Your task to perform on an android device: set the stopwatch Image 0: 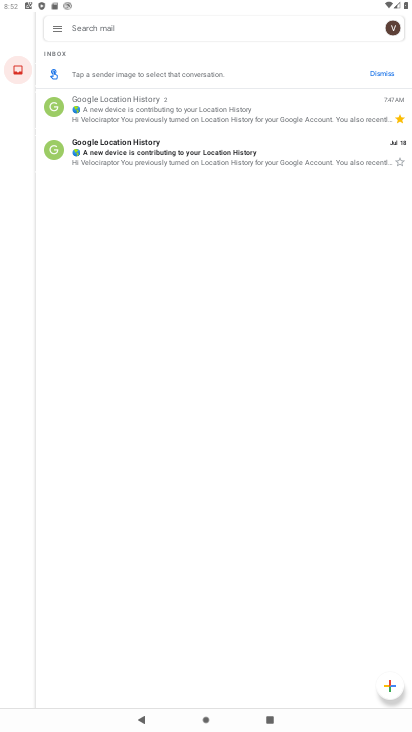
Step 0: press home button
Your task to perform on an android device: set the stopwatch Image 1: 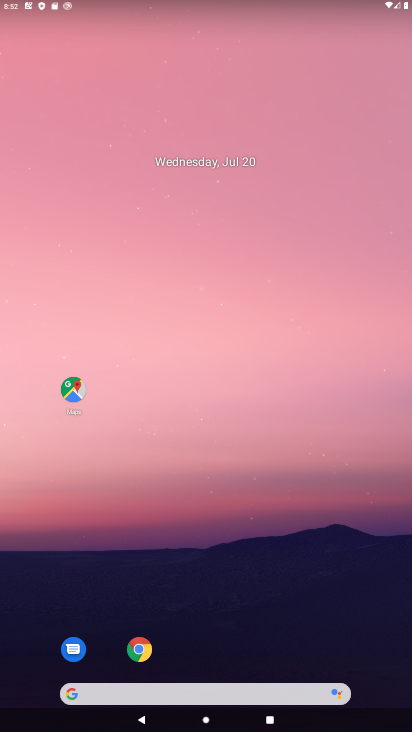
Step 1: drag from (185, 694) to (131, 198)
Your task to perform on an android device: set the stopwatch Image 2: 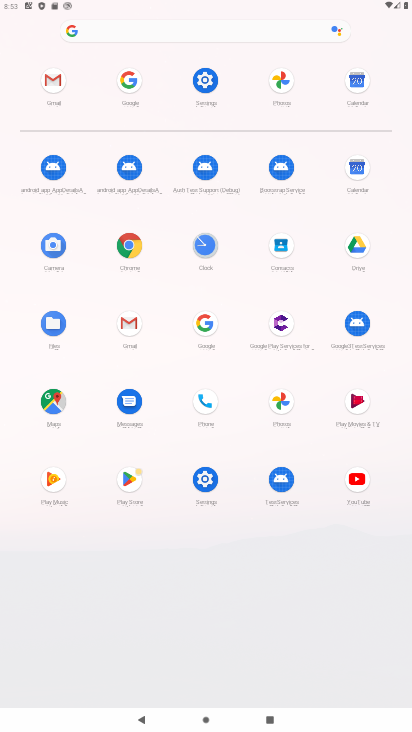
Step 2: click (208, 246)
Your task to perform on an android device: set the stopwatch Image 3: 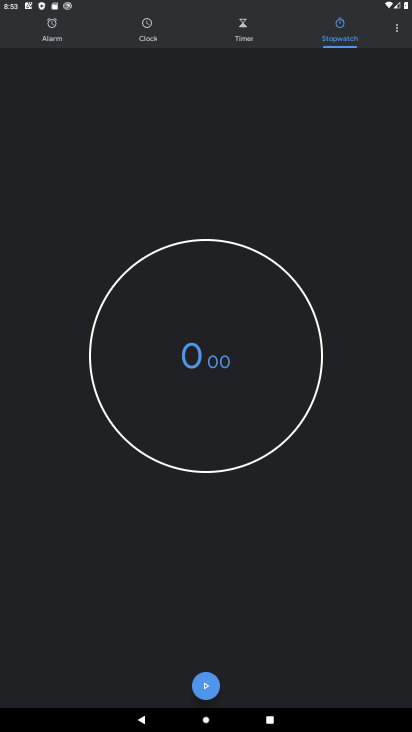
Step 3: click (206, 686)
Your task to perform on an android device: set the stopwatch Image 4: 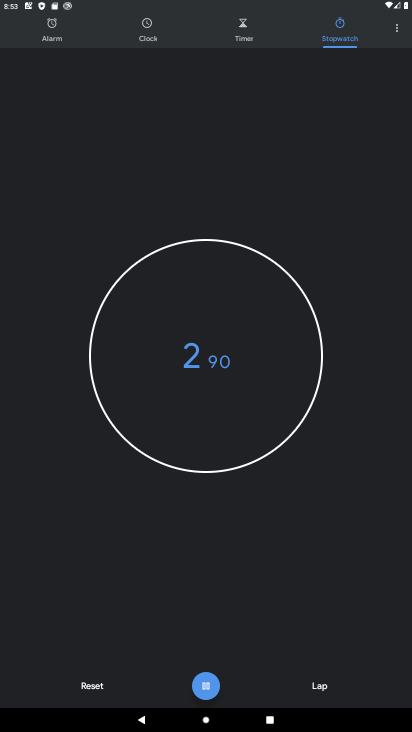
Step 4: click (206, 686)
Your task to perform on an android device: set the stopwatch Image 5: 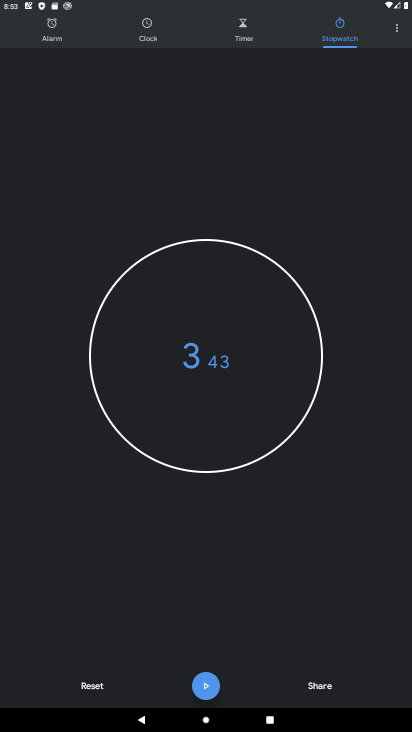
Step 5: task complete